Your task to perform on an android device: turn notification dots off Image 0: 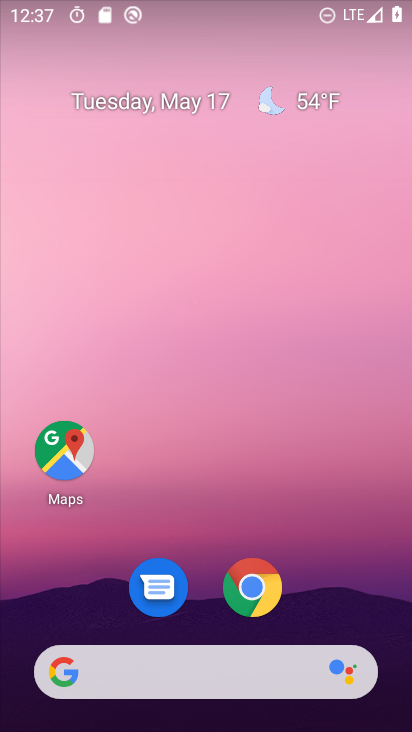
Step 0: drag from (199, 633) to (217, 167)
Your task to perform on an android device: turn notification dots off Image 1: 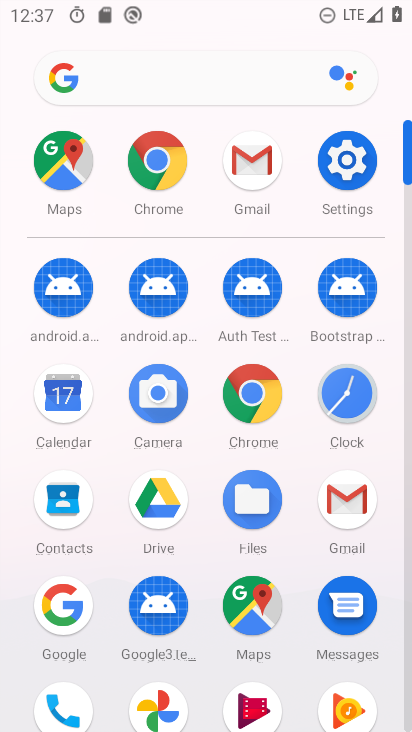
Step 1: click (343, 160)
Your task to perform on an android device: turn notification dots off Image 2: 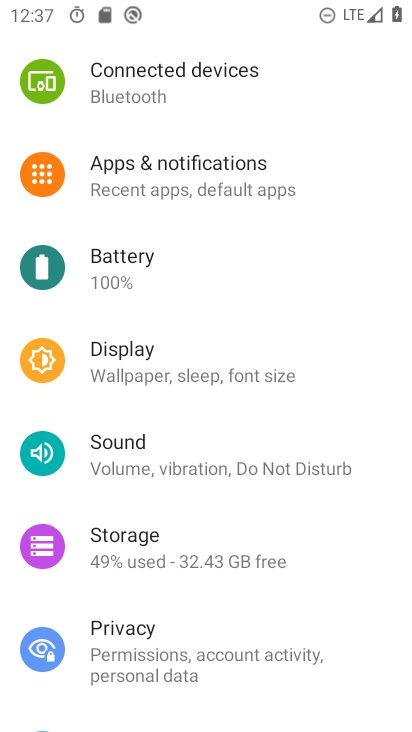
Step 2: drag from (218, 249) to (259, 719)
Your task to perform on an android device: turn notification dots off Image 3: 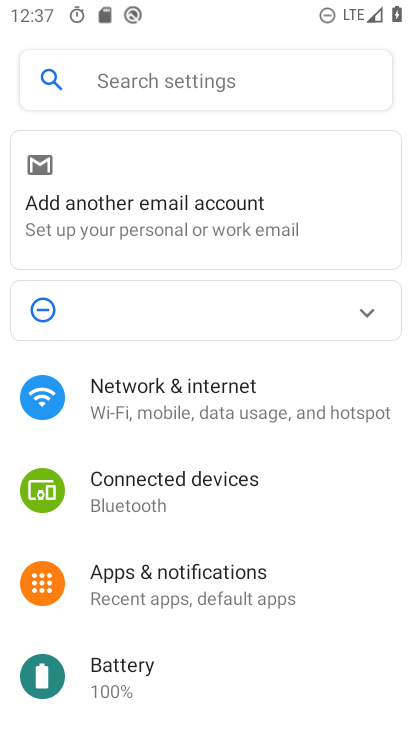
Step 3: click (195, 570)
Your task to perform on an android device: turn notification dots off Image 4: 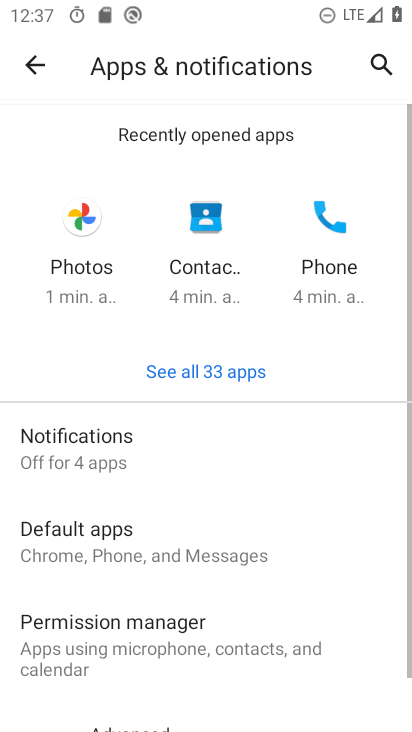
Step 4: drag from (272, 471) to (372, 112)
Your task to perform on an android device: turn notification dots off Image 5: 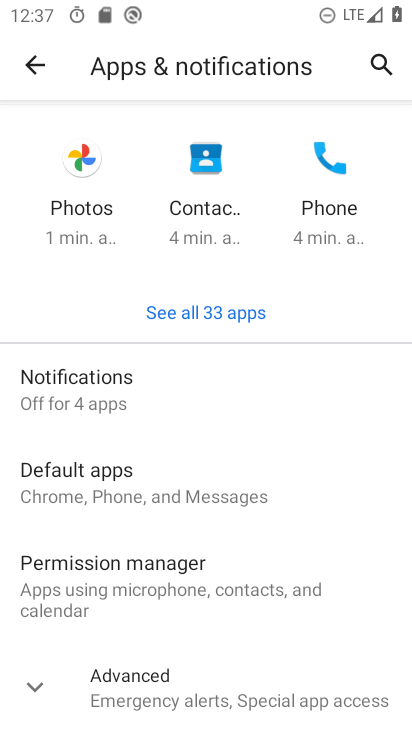
Step 5: click (162, 384)
Your task to perform on an android device: turn notification dots off Image 6: 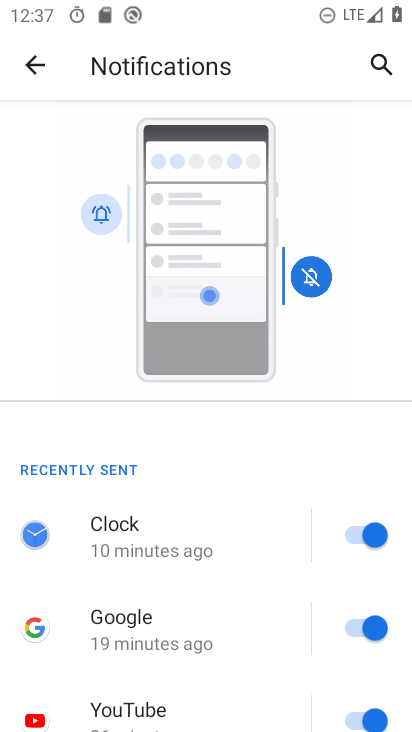
Step 6: drag from (239, 579) to (317, 206)
Your task to perform on an android device: turn notification dots off Image 7: 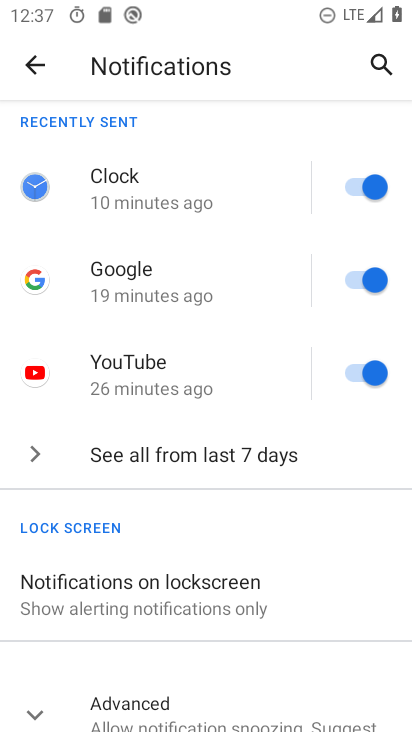
Step 7: drag from (230, 581) to (241, 322)
Your task to perform on an android device: turn notification dots off Image 8: 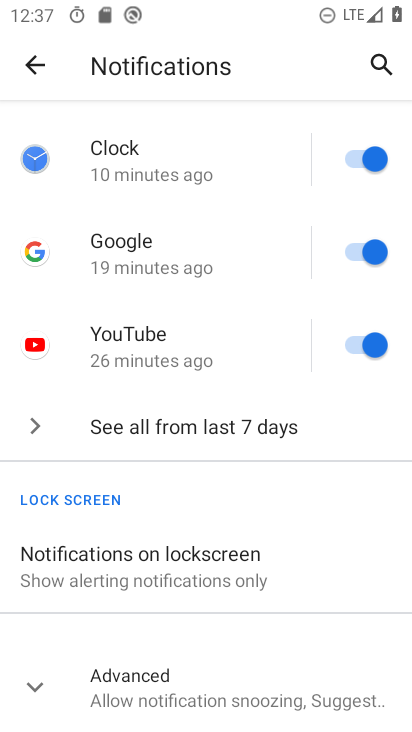
Step 8: drag from (195, 627) to (220, 219)
Your task to perform on an android device: turn notification dots off Image 9: 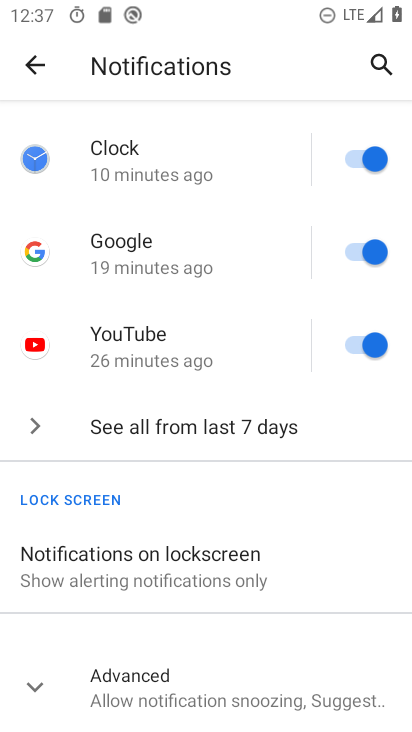
Step 9: click (178, 696)
Your task to perform on an android device: turn notification dots off Image 10: 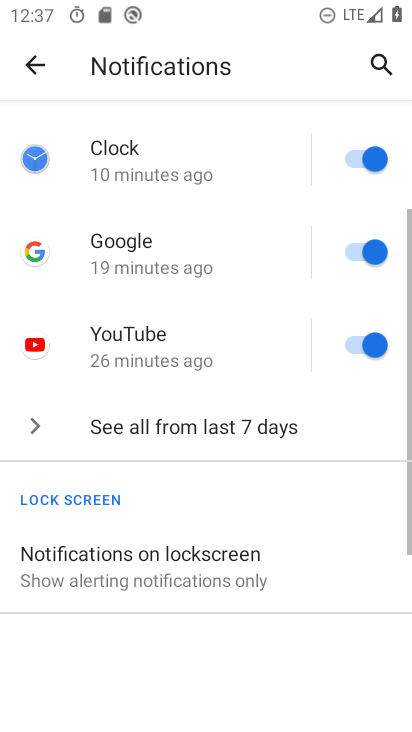
Step 10: task complete